Your task to perform on an android device: Open settings Image 0: 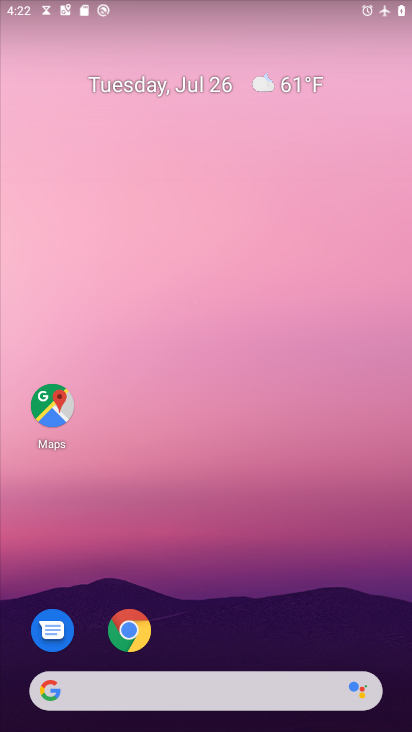
Step 0: drag from (241, 651) to (191, 255)
Your task to perform on an android device: Open settings Image 1: 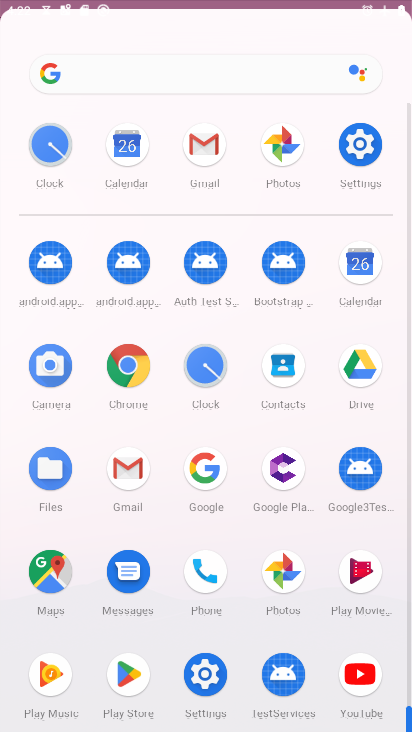
Step 1: drag from (222, 520) to (159, 92)
Your task to perform on an android device: Open settings Image 2: 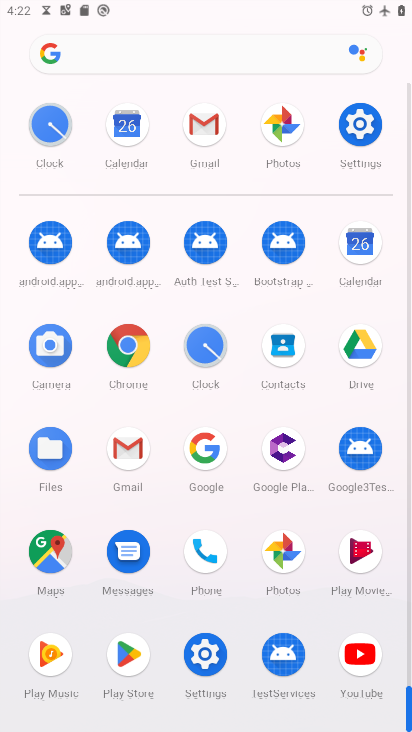
Step 2: click (346, 118)
Your task to perform on an android device: Open settings Image 3: 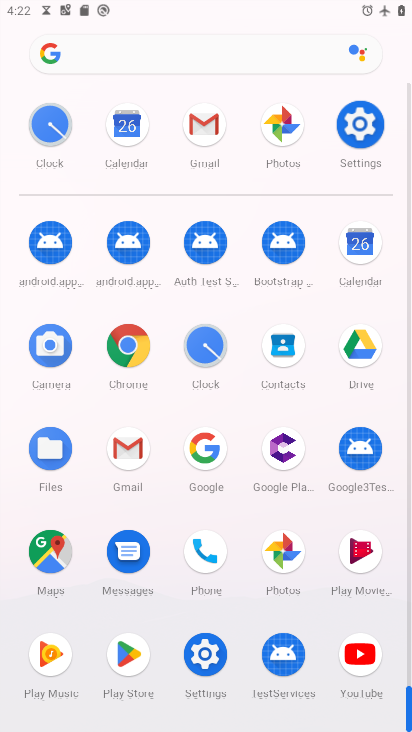
Step 3: click (348, 114)
Your task to perform on an android device: Open settings Image 4: 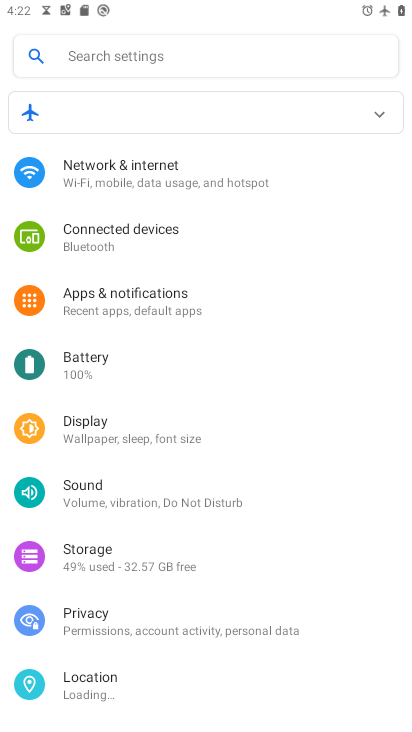
Step 4: click (370, 126)
Your task to perform on an android device: Open settings Image 5: 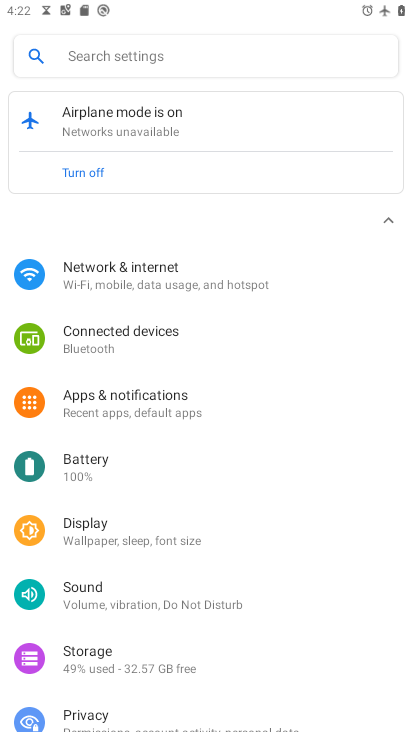
Step 5: task complete